Your task to perform on an android device: Go to privacy settings Image 0: 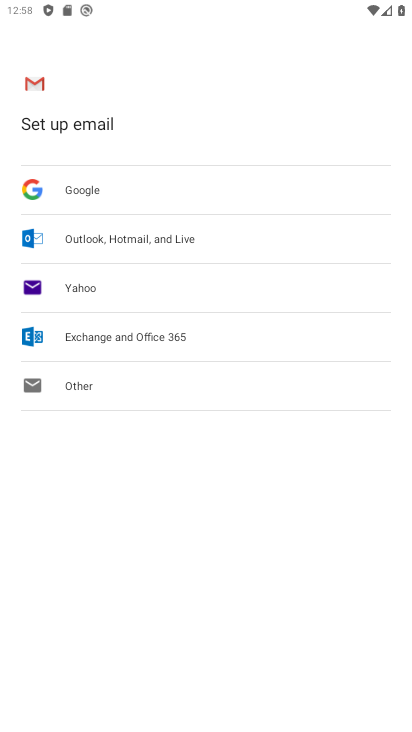
Step 0: press home button
Your task to perform on an android device: Go to privacy settings Image 1: 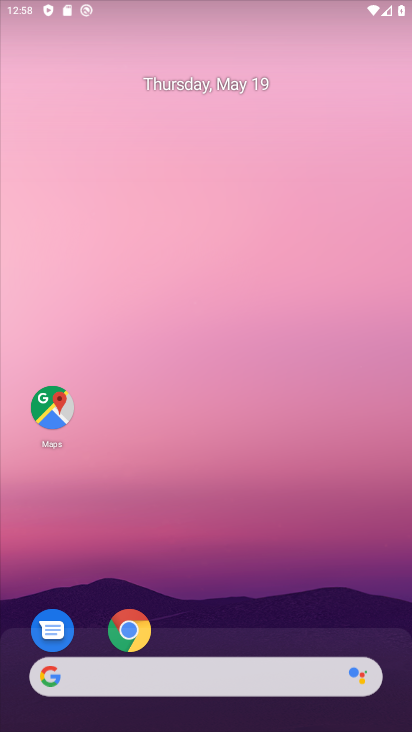
Step 1: drag from (331, 622) to (169, 47)
Your task to perform on an android device: Go to privacy settings Image 2: 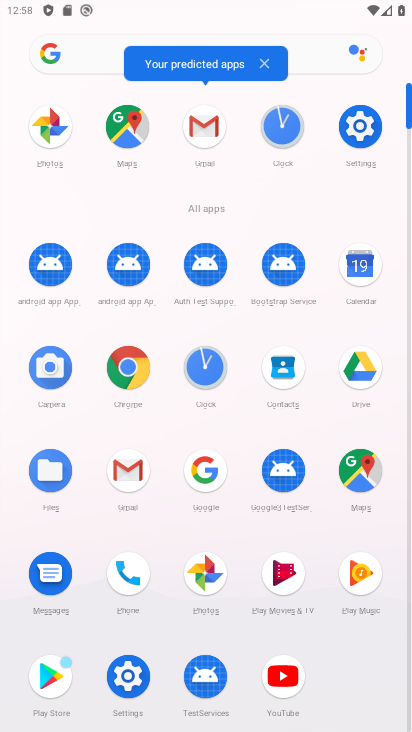
Step 2: click (358, 114)
Your task to perform on an android device: Go to privacy settings Image 3: 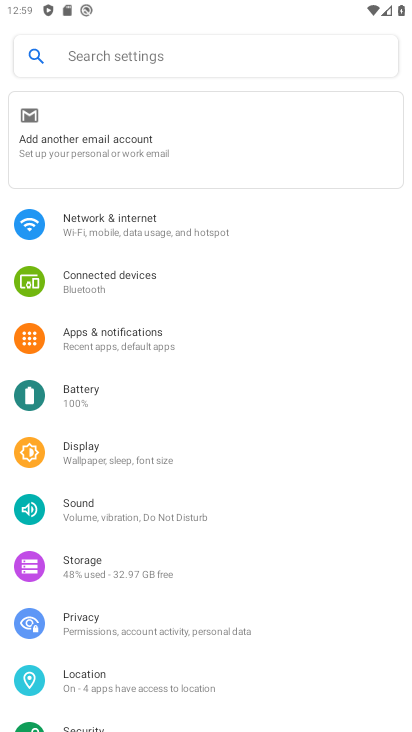
Step 3: click (96, 639)
Your task to perform on an android device: Go to privacy settings Image 4: 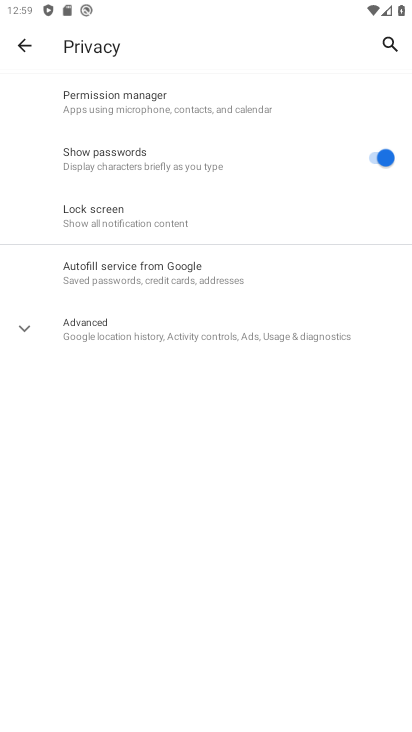
Step 4: task complete